Your task to perform on an android device: Go to settings Image 0: 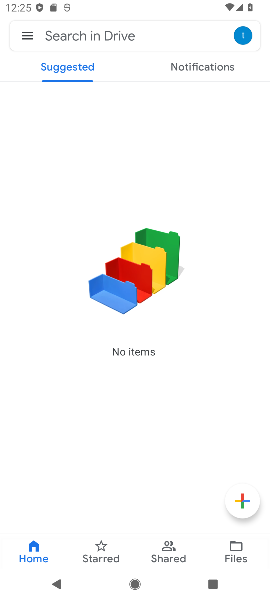
Step 0: press home button
Your task to perform on an android device: Go to settings Image 1: 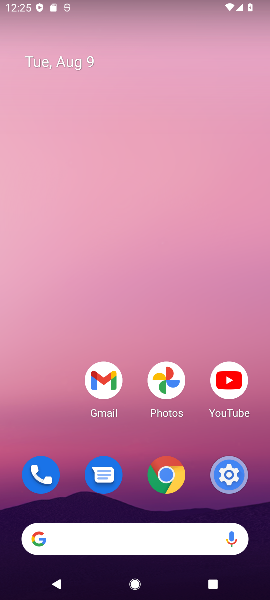
Step 1: click (232, 480)
Your task to perform on an android device: Go to settings Image 2: 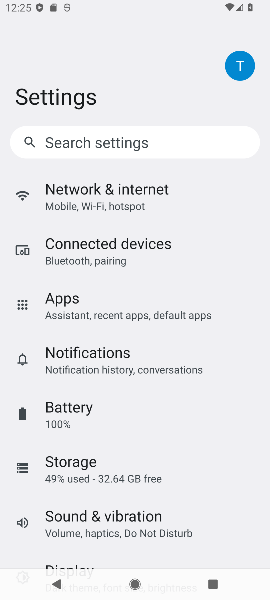
Step 2: task complete